Your task to perform on an android device: Open calendar and show me the third week of next month Image 0: 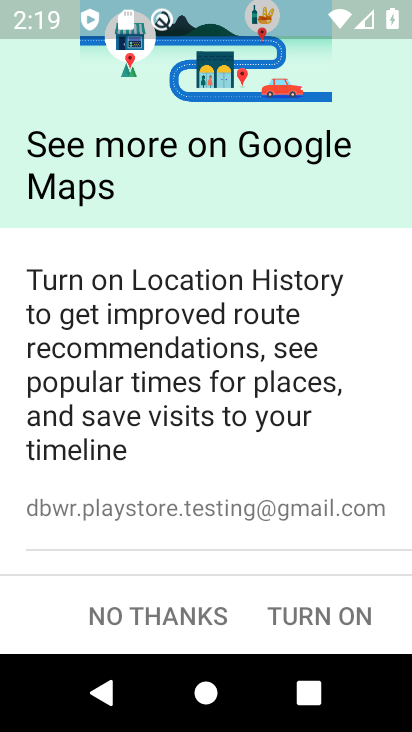
Step 0: press back button
Your task to perform on an android device: Open calendar and show me the third week of next month Image 1: 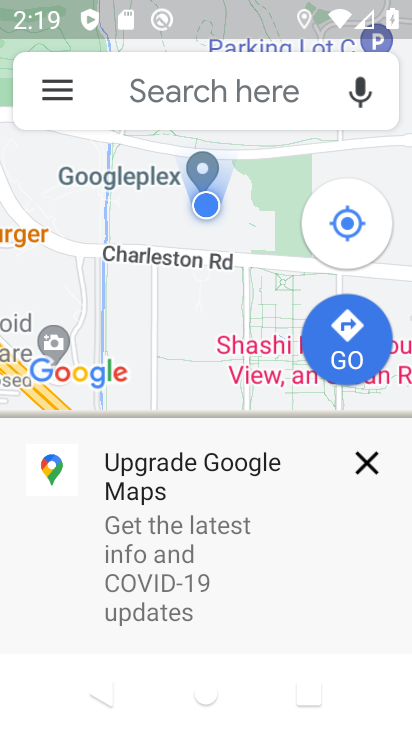
Step 1: press back button
Your task to perform on an android device: Open calendar and show me the third week of next month Image 2: 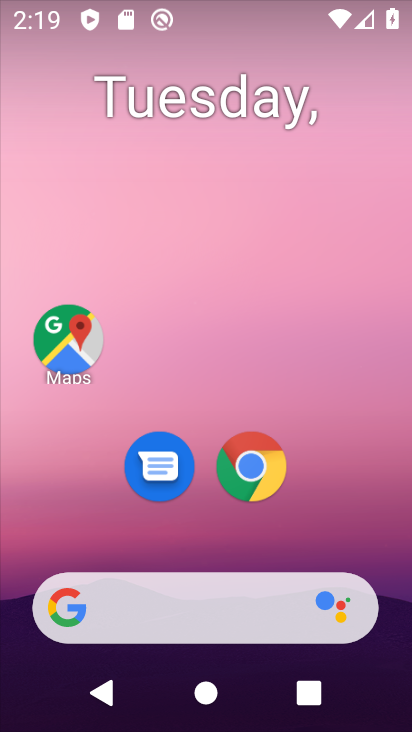
Step 2: drag from (341, 523) to (272, 66)
Your task to perform on an android device: Open calendar and show me the third week of next month Image 3: 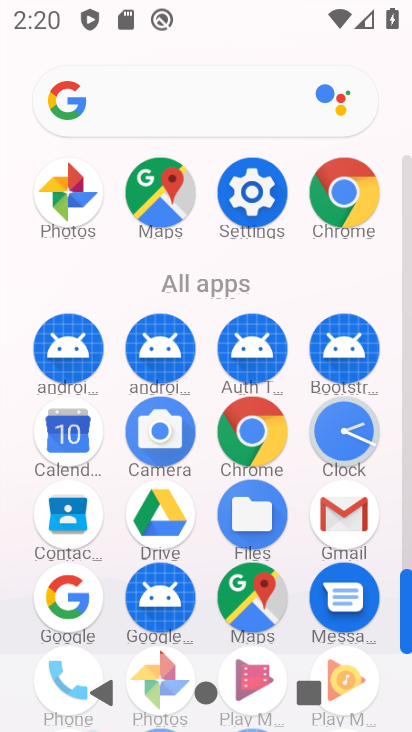
Step 3: click (72, 436)
Your task to perform on an android device: Open calendar and show me the third week of next month Image 4: 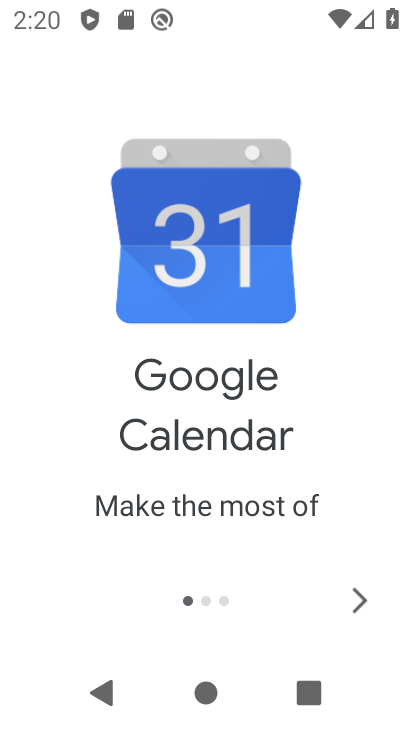
Step 4: click (366, 597)
Your task to perform on an android device: Open calendar and show me the third week of next month Image 5: 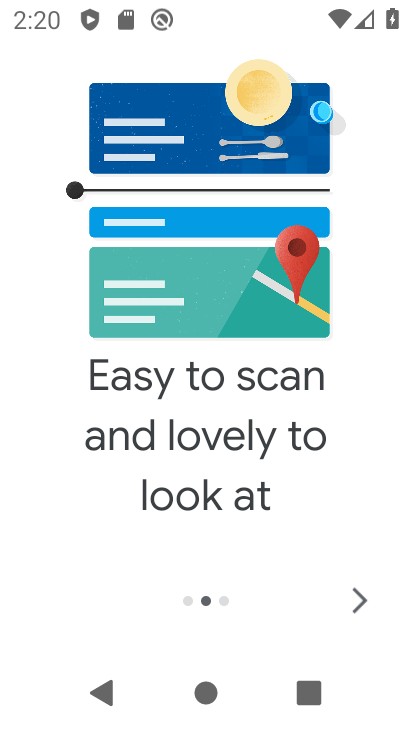
Step 5: click (366, 597)
Your task to perform on an android device: Open calendar and show me the third week of next month Image 6: 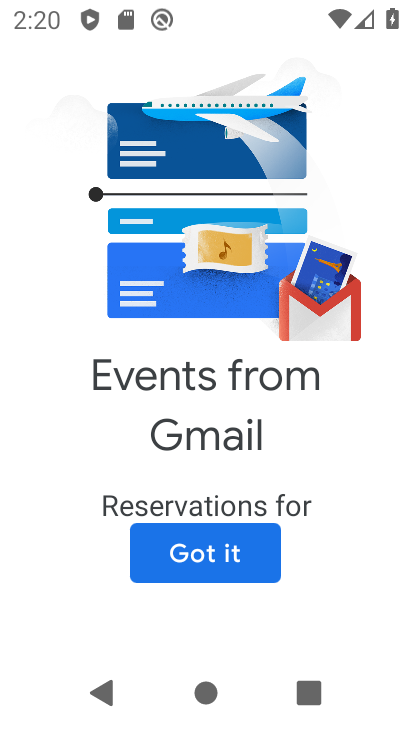
Step 6: click (204, 558)
Your task to perform on an android device: Open calendar and show me the third week of next month Image 7: 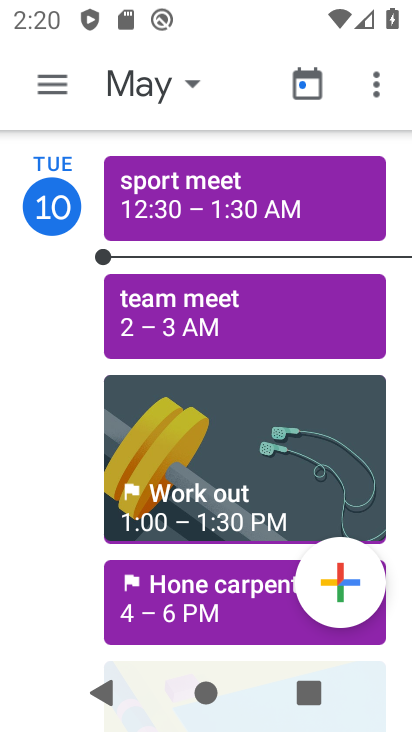
Step 7: click (195, 86)
Your task to perform on an android device: Open calendar and show me the third week of next month Image 8: 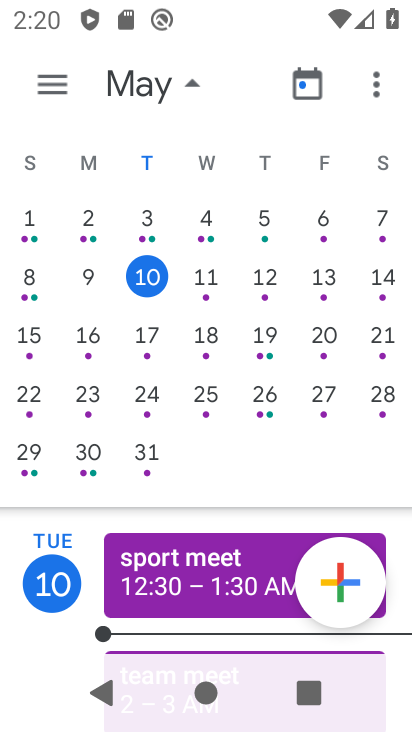
Step 8: drag from (361, 359) to (0, 344)
Your task to perform on an android device: Open calendar and show me the third week of next month Image 9: 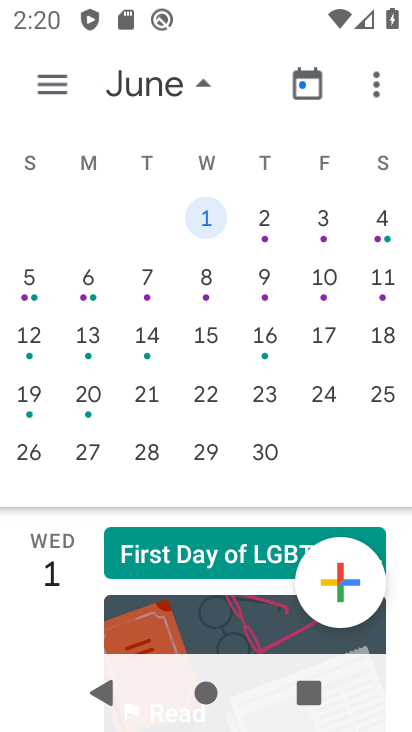
Step 9: click (89, 382)
Your task to perform on an android device: Open calendar and show me the third week of next month Image 10: 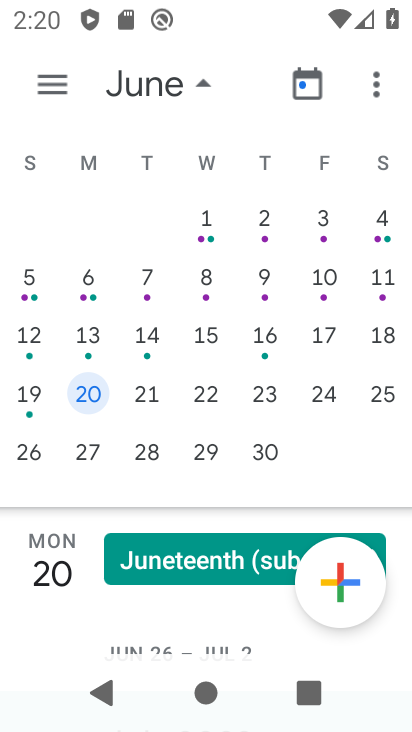
Step 10: click (55, 87)
Your task to perform on an android device: Open calendar and show me the third week of next month Image 11: 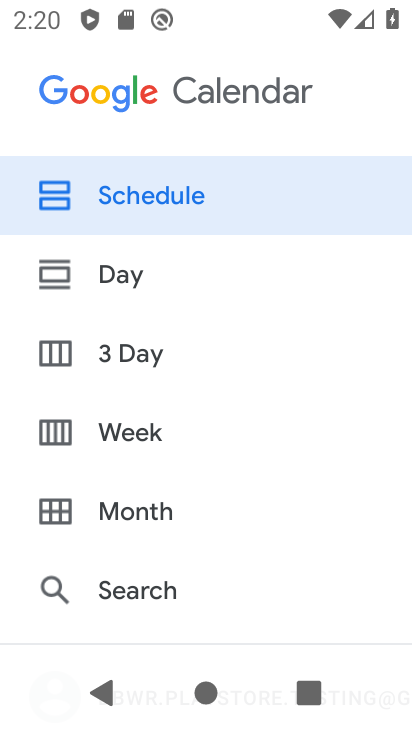
Step 11: click (149, 431)
Your task to perform on an android device: Open calendar and show me the third week of next month Image 12: 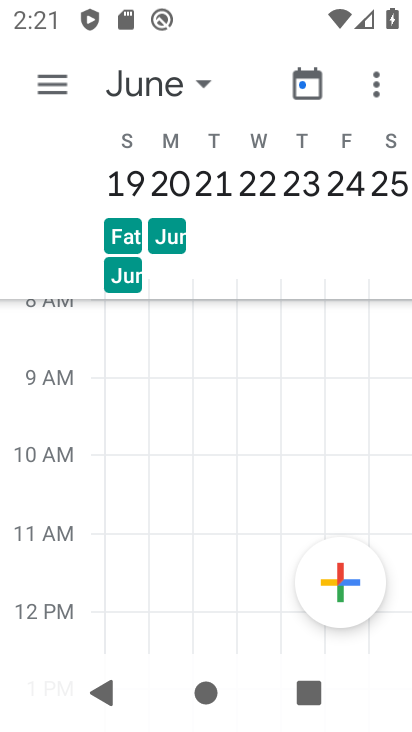
Step 12: task complete